Your task to perform on an android device: check out phone information Image 0: 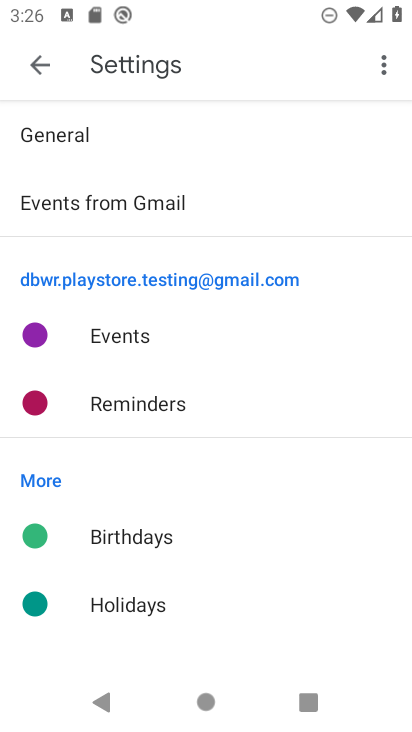
Step 0: press home button
Your task to perform on an android device: check out phone information Image 1: 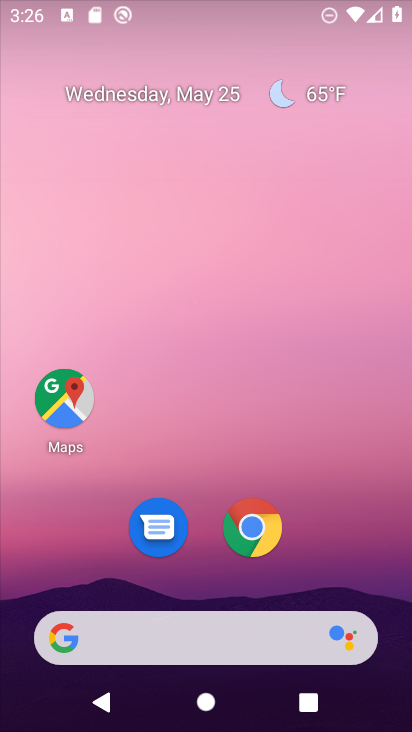
Step 1: drag from (320, 620) to (352, 13)
Your task to perform on an android device: check out phone information Image 2: 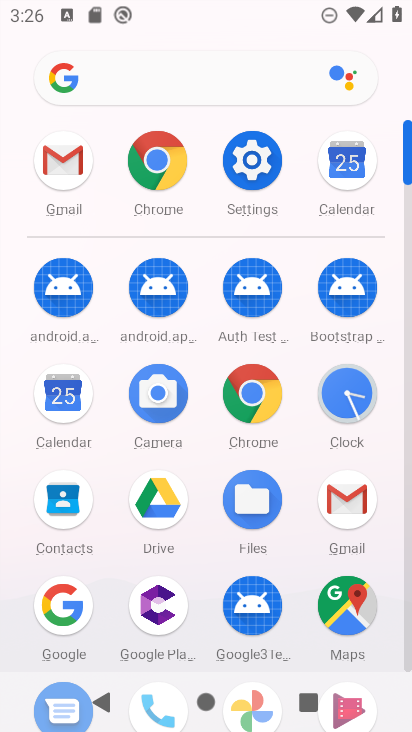
Step 2: drag from (308, 638) to (307, 72)
Your task to perform on an android device: check out phone information Image 3: 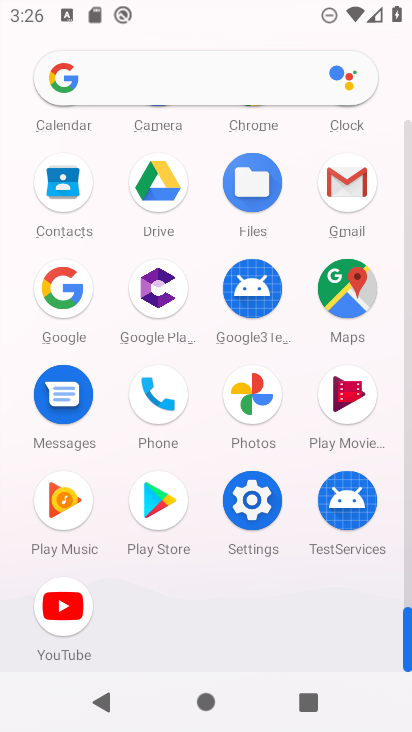
Step 3: click (265, 522)
Your task to perform on an android device: check out phone information Image 4: 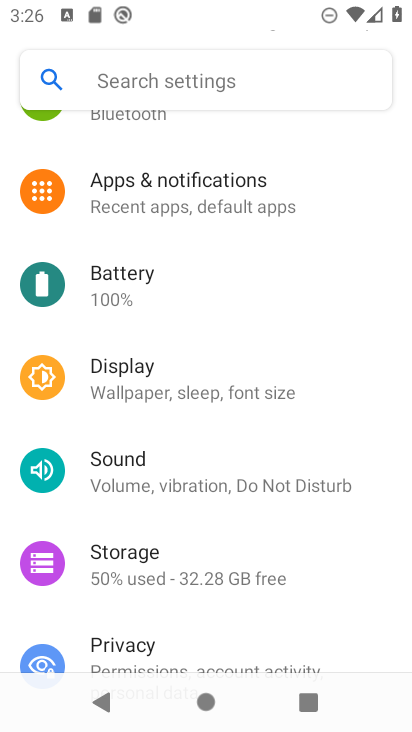
Step 4: drag from (293, 599) to (327, 25)
Your task to perform on an android device: check out phone information Image 5: 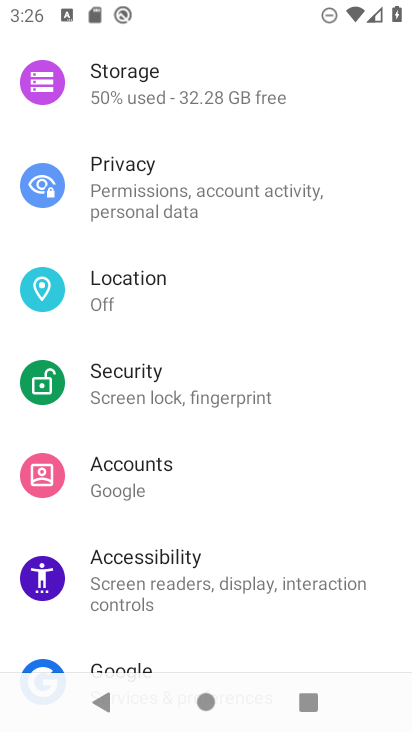
Step 5: drag from (272, 551) to (289, 98)
Your task to perform on an android device: check out phone information Image 6: 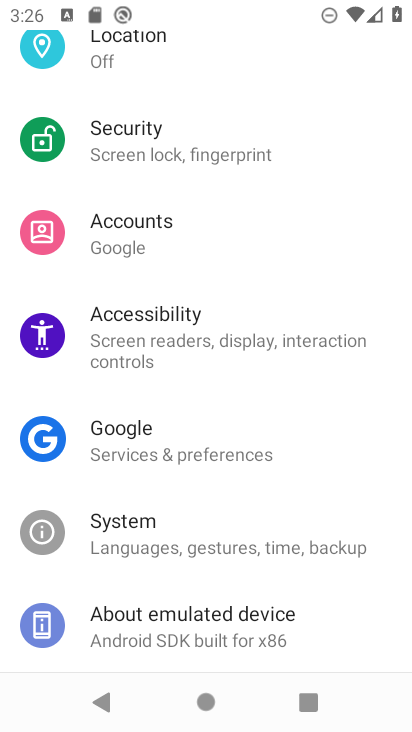
Step 6: click (197, 633)
Your task to perform on an android device: check out phone information Image 7: 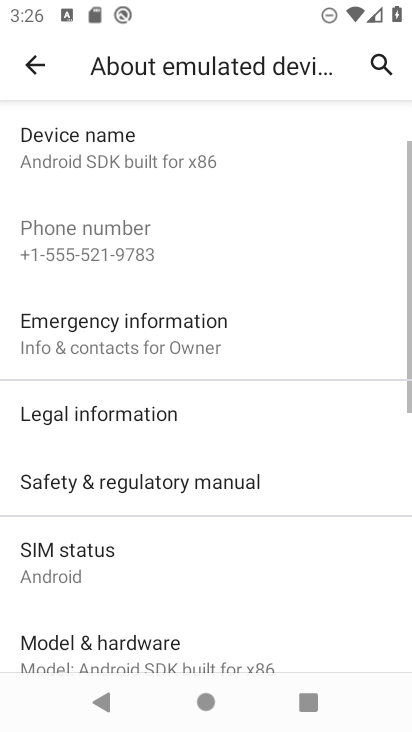
Step 7: task complete